Your task to perform on an android device: Open calendar and show me the fourth week of next month Image 0: 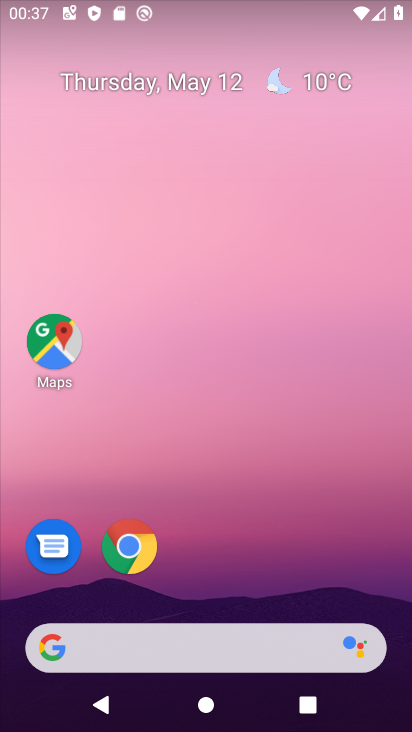
Step 0: drag from (137, 612) to (201, 260)
Your task to perform on an android device: Open calendar and show me the fourth week of next month Image 1: 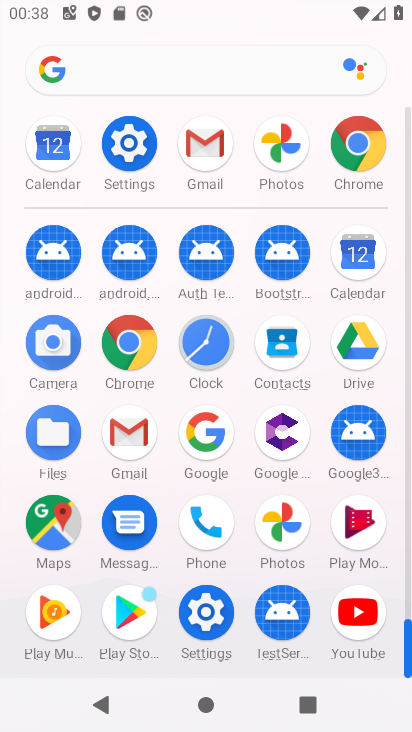
Step 1: click (356, 258)
Your task to perform on an android device: Open calendar and show me the fourth week of next month Image 2: 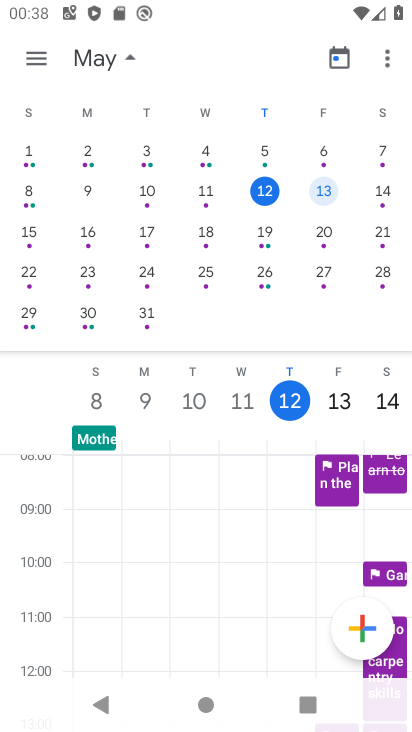
Step 2: drag from (406, 209) to (61, 179)
Your task to perform on an android device: Open calendar and show me the fourth week of next month Image 3: 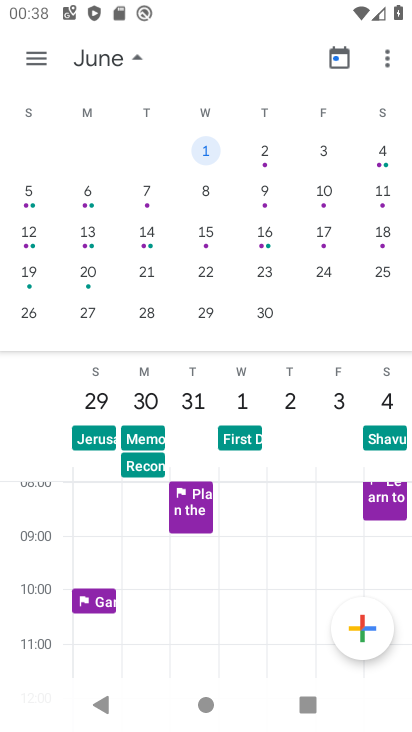
Step 3: click (205, 269)
Your task to perform on an android device: Open calendar and show me the fourth week of next month Image 4: 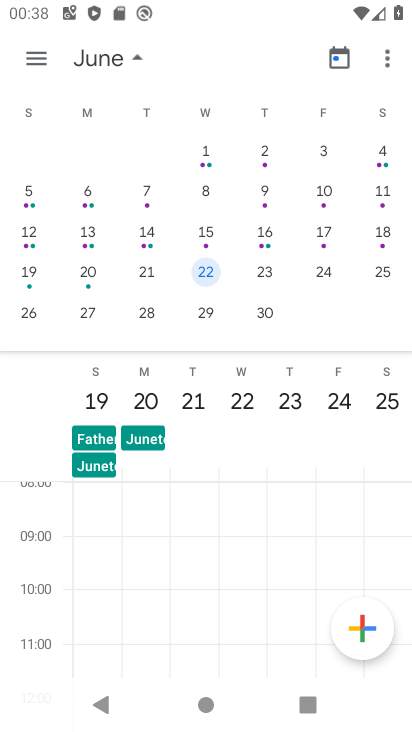
Step 4: click (28, 57)
Your task to perform on an android device: Open calendar and show me the fourth week of next month Image 5: 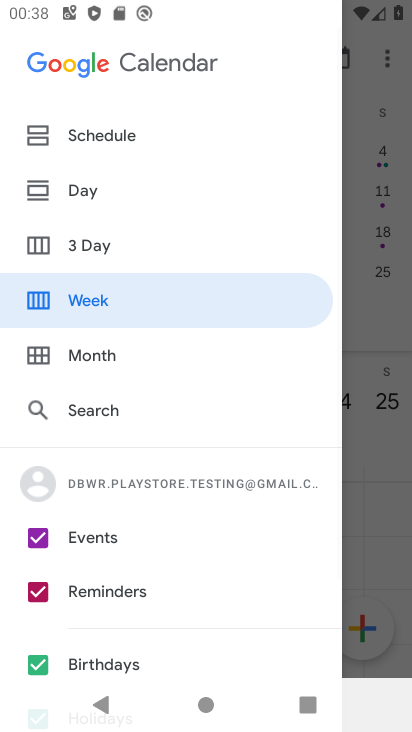
Step 5: click (110, 313)
Your task to perform on an android device: Open calendar and show me the fourth week of next month Image 6: 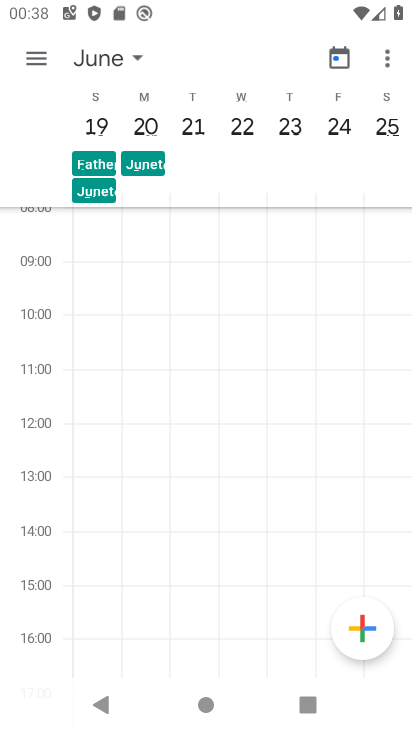
Step 6: task complete